Your task to perform on an android device: snooze an email in the gmail app Image 0: 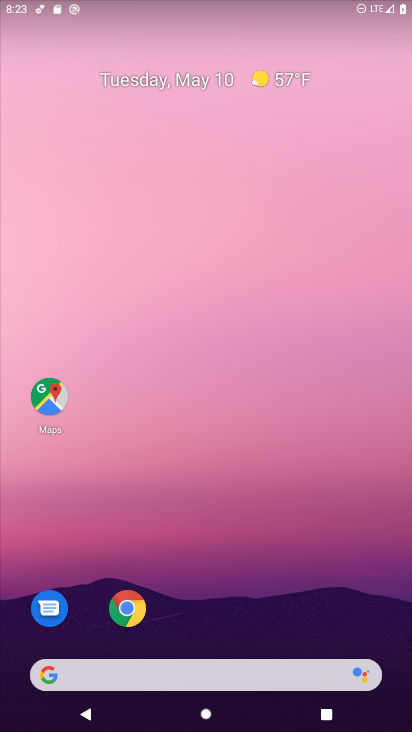
Step 0: drag from (357, 622) to (286, 97)
Your task to perform on an android device: snooze an email in the gmail app Image 1: 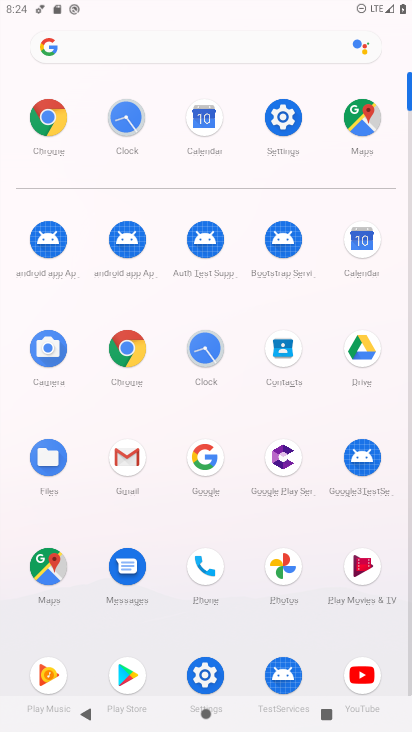
Step 1: click (116, 467)
Your task to perform on an android device: snooze an email in the gmail app Image 2: 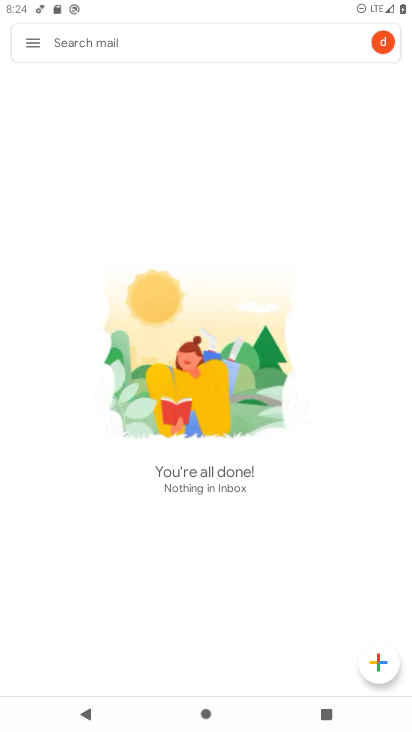
Step 2: click (32, 34)
Your task to perform on an android device: snooze an email in the gmail app Image 3: 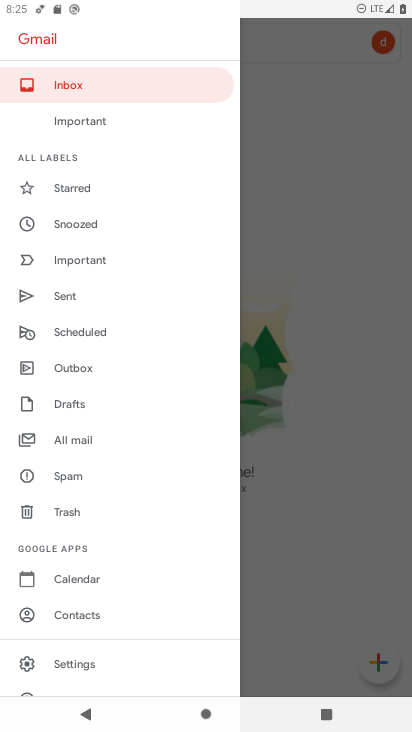
Step 3: drag from (104, 618) to (168, 182)
Your task to perform on an android device: snooze an email in the gmail app Image 4: 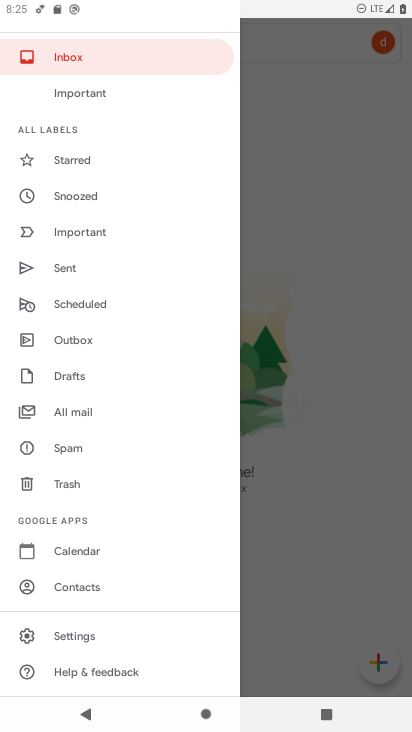
Step 4: click (99, 200)
Your task to perform on an android device: snooze an email in the gmail app Image 5: 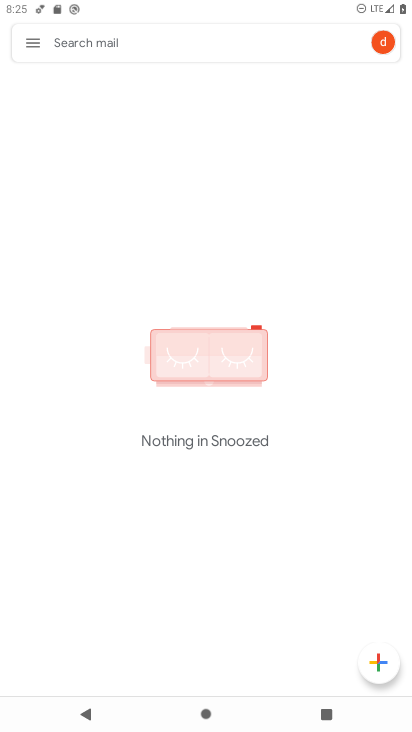
Step 5: task complete